Your task to perform on an android device: Open privacy settings Image 0: 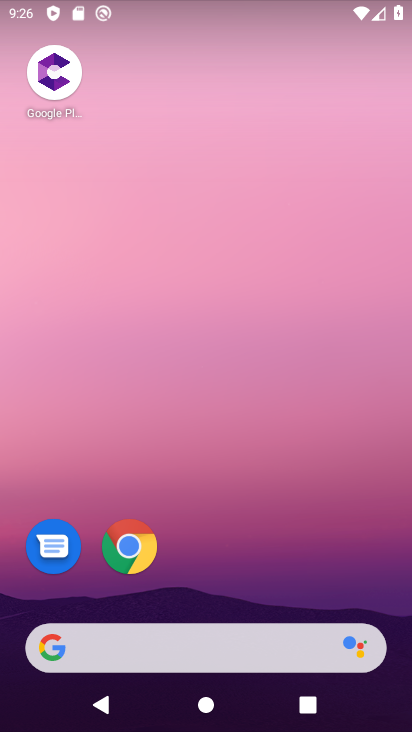
Step 0: drag from (280, 578) to (253, 163)
Your task to perform on an android device: Open privacy settings Image 1: 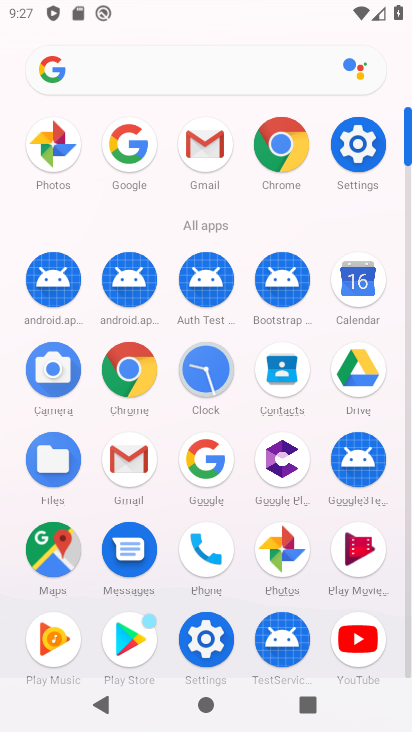
Step 1: click (357, 144)
Your task to perform on an android device: Open privacy settings Image 2: 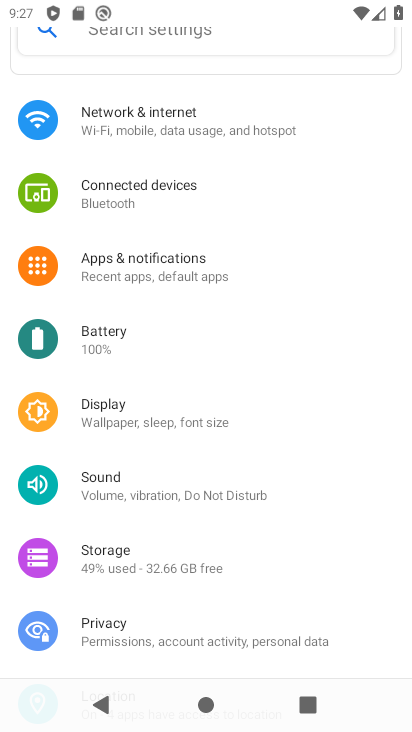
Step 2: click (106, 629)
Your task to perform on an android device: Open privacy settings Image 3: 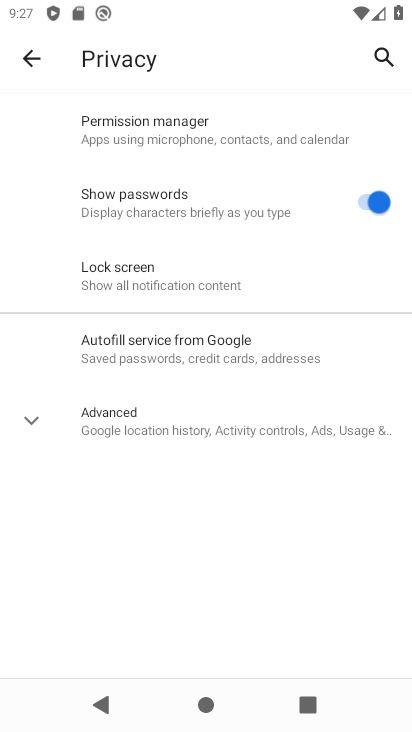
Step 3: task complete